Your task to perform on an android device: Go to sound settings Image 0: 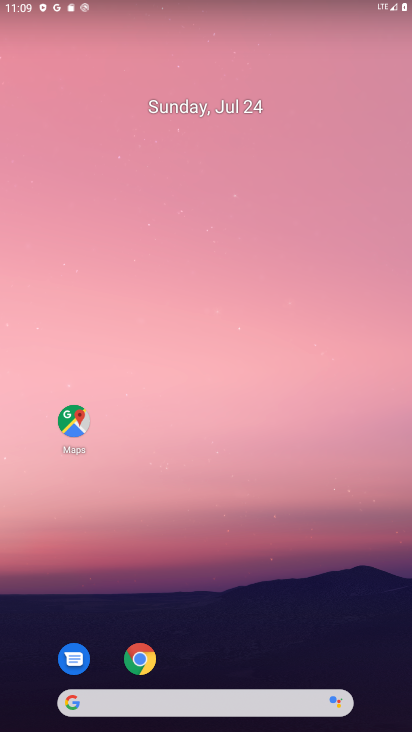
Step 0: drag from (270, 663) to (166, 238)
Your task to perform on an android device: Go to sound settings Image 1: 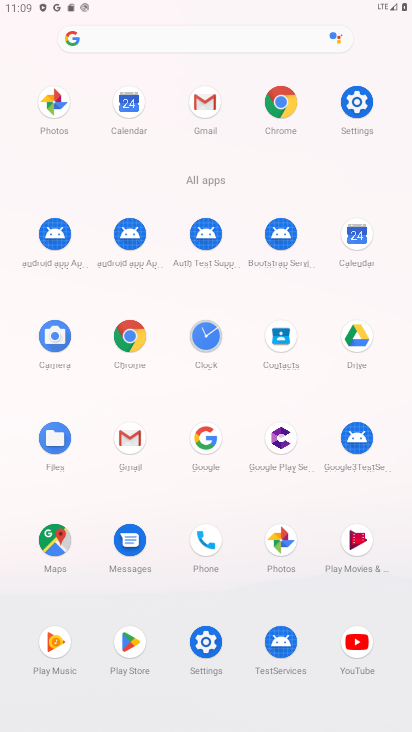
Step 1: click (361, 112)
Your task to perform on an android device: Go to sound settings Image 2: 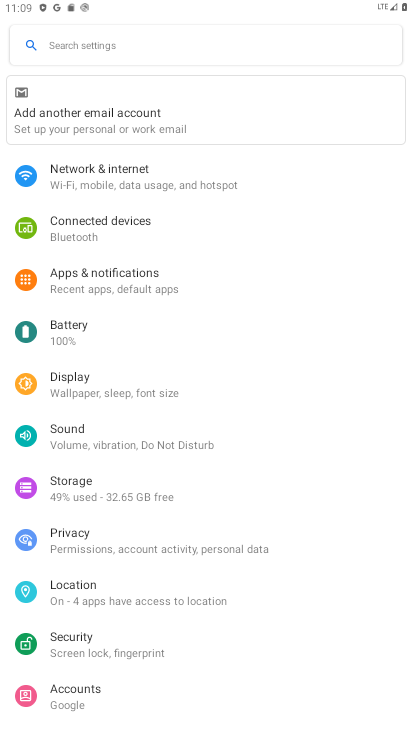
Step 2: click (170, 442)
Your task to perform on an android device: Go to sound settings Image 3: 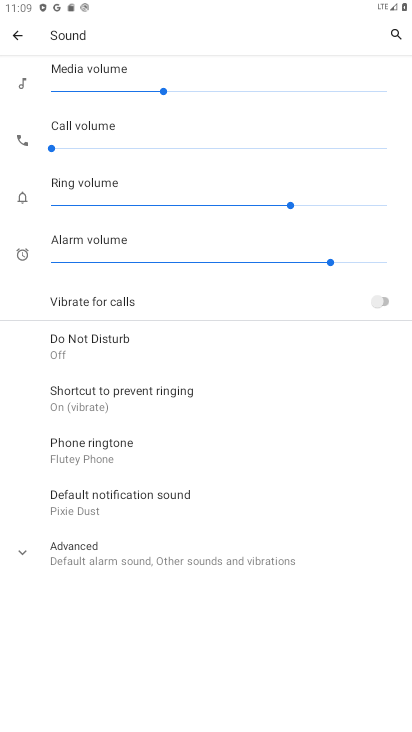
Step 3: task complete